Your task to perform on an android device: add a label to a message in the gmail app Image 0: 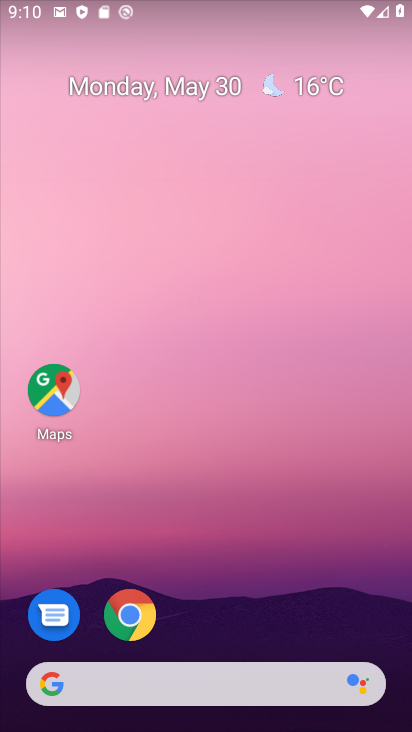
Step 0: drag from (241, 597) to (263, 50)
Your task to perform on an android device: add a label to a message in the gmail app Image 1: 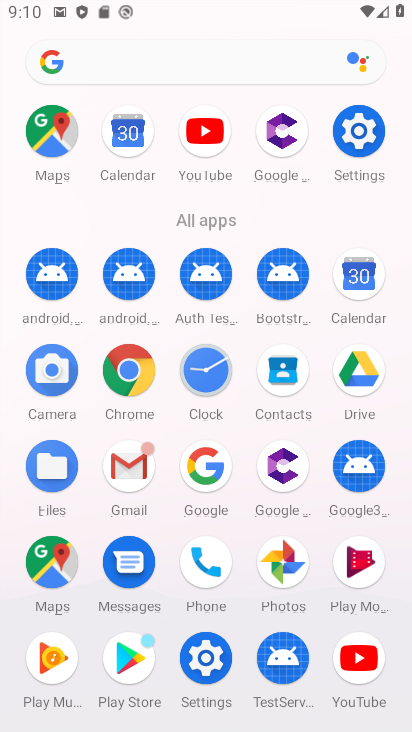
Step 1: click (124, 475)
Your task to perform on an android device: add a label to a message in the gmail app Image 2: 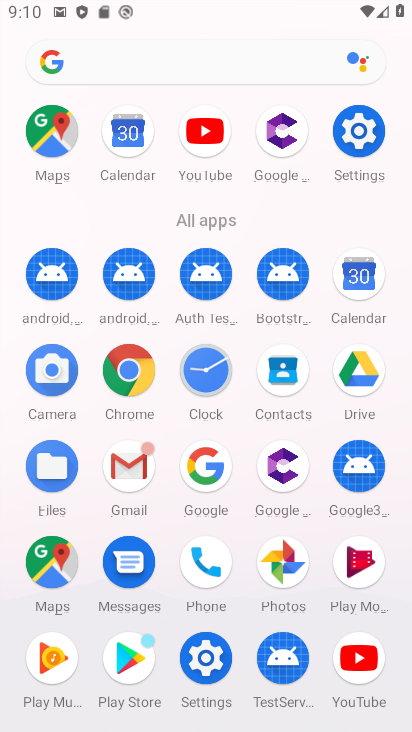
Step 2: click (134, 466)
Your task to perform on an android device: add a label to a message in the gmail app Image 3: 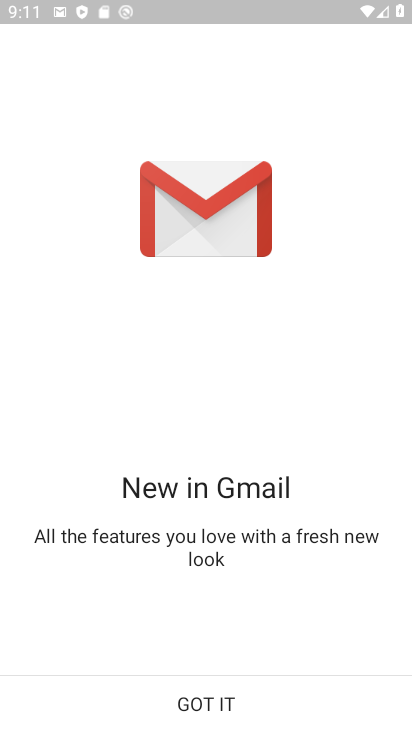
Step 3: click (220, 691)
Your task to perform on an android device: add a label to a message in the gmail app Image 4: 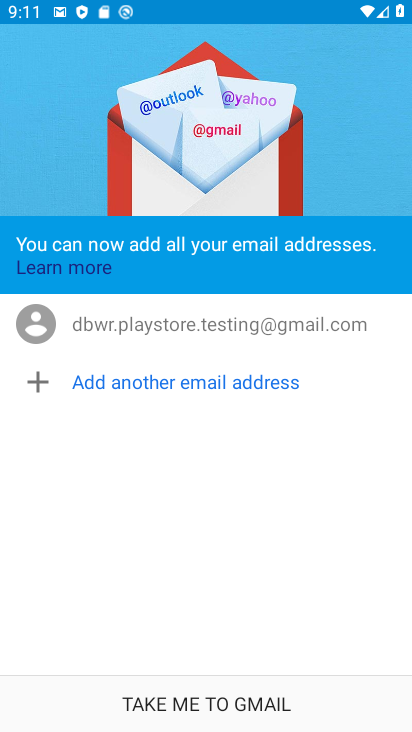
Step 4: click (212, 707)
Your task to perform on an android device: add a label to a message in the gmail app Image 5: 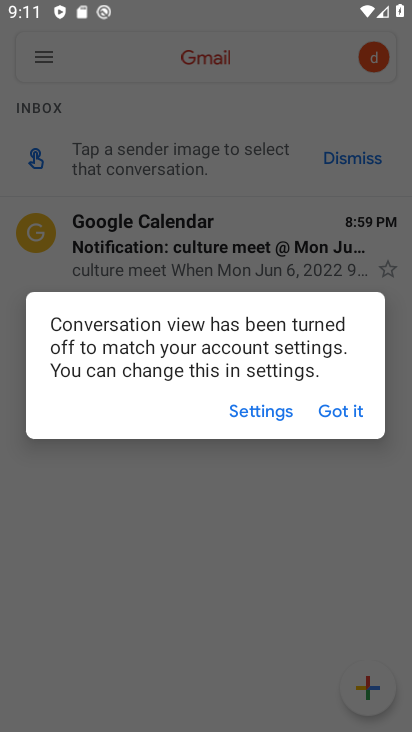
Step 5: click (334, 410)
Your task to perform on an android device: add a label to a message in the gmail app Image 6: 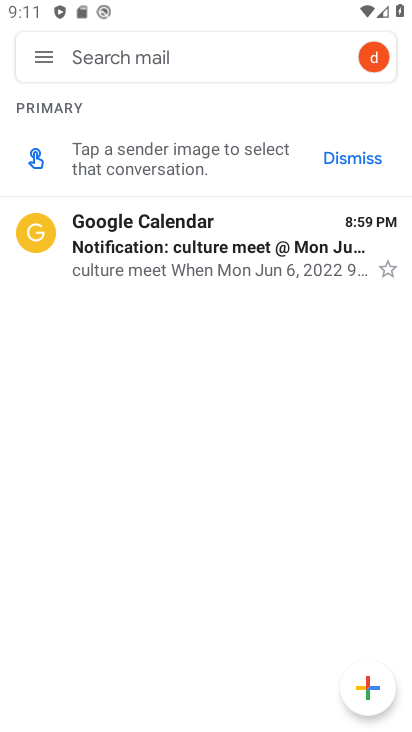
Step 6: click (40, 49)
Your task to perform on an android device: add a label to a message in the gmail app Image 7: 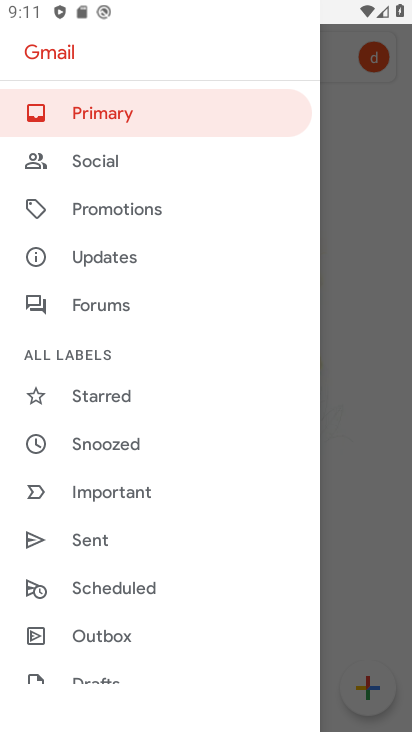
Step 7: drag from (148, 596) to (220, 144)
Your task to perform on an android device: add a label to a message in the gmail app Image 8: 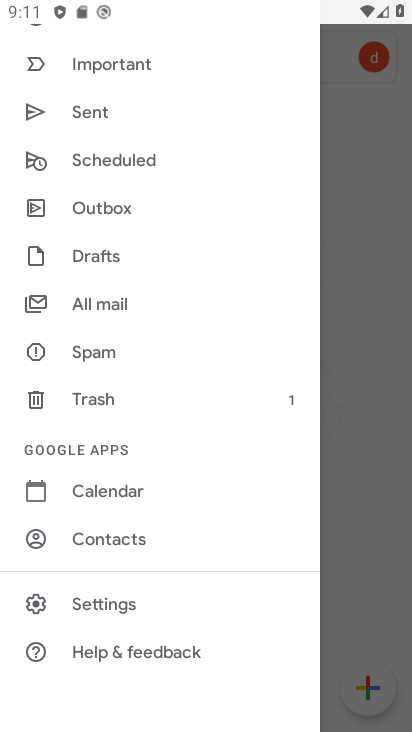
Step 8: click (107, 302)
Your task to perform on an android device: add a label to a message in the gmail app Image 9: 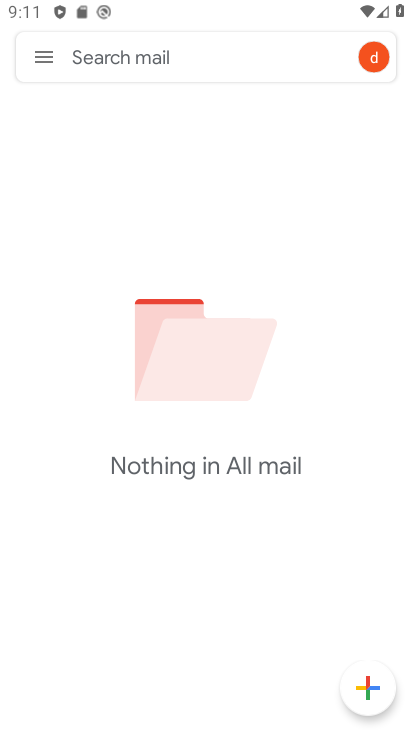
Step 9: task complete